Your task to perform on an android device: open sync settings in chrome Image 0: 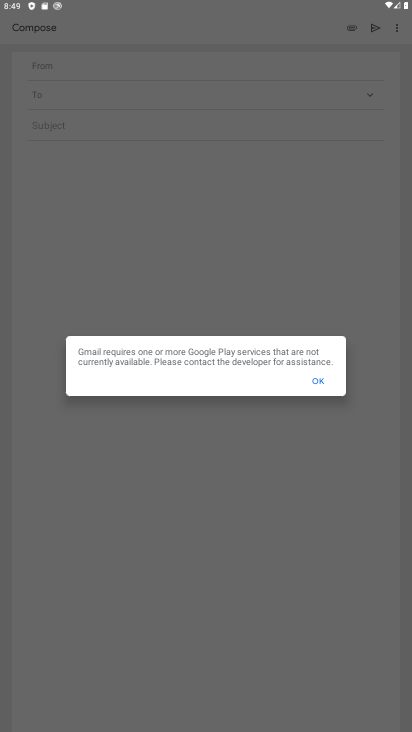
Step 0: press home button
Your task to perform on an android device: open sync settings in chrome Image 1: 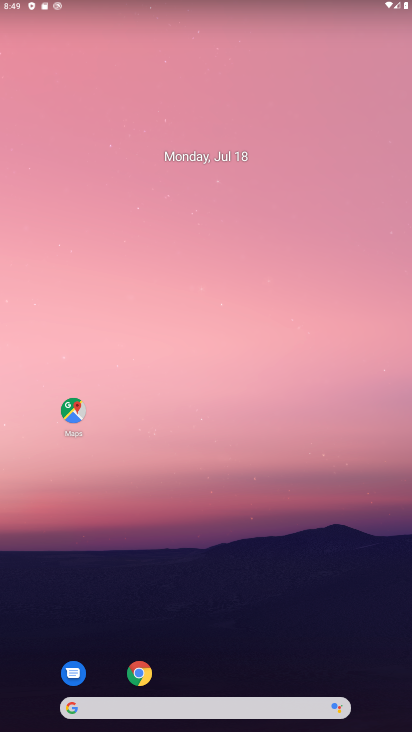
Step 1: drag from (260, 653) to (345, 0)
Your task to perform on an android device: open sync settings in chrome Image 2: 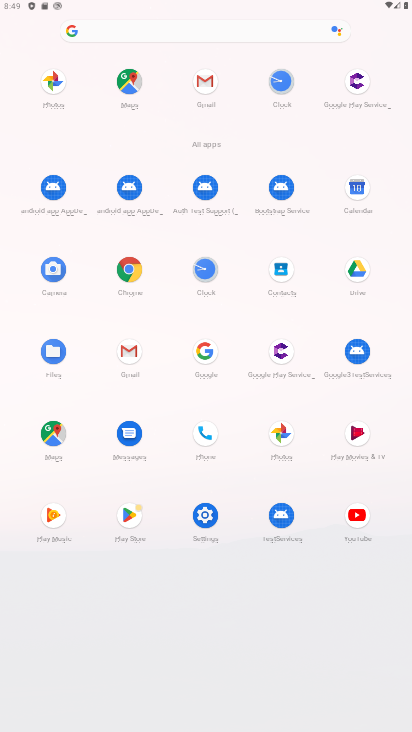
Step 2: click (132, 277)
Your task to perform on an android device: open sync settings in chrome Image 3: 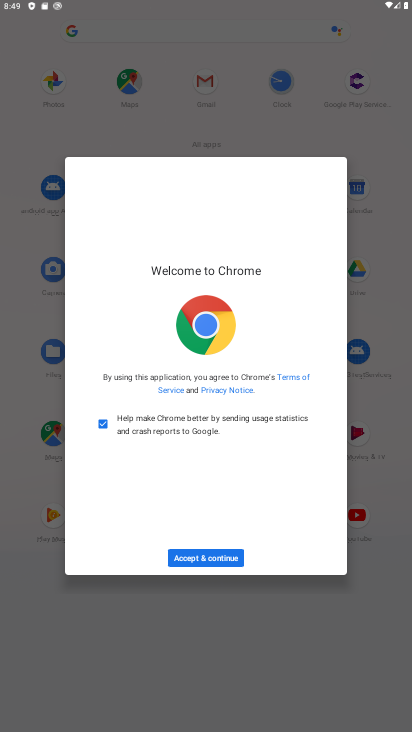
Step 3: click (210, 557)
Your task to perform on an android device: open sync settings in chrome Image 4: 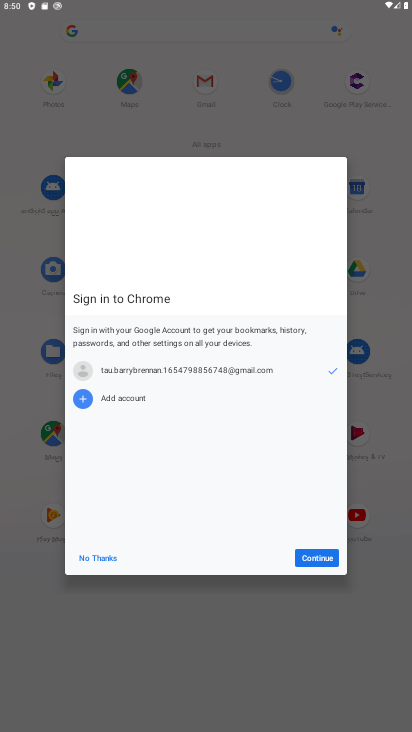
Step 4: click (318, 554)
Your task to perform on an android device: open sync settings in chrome Image 5: 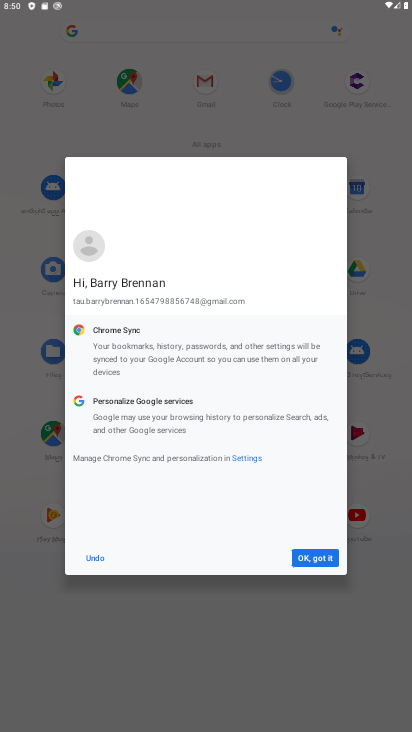
Step 5: click (313, 560)
Your task to perform on an android device: open sync settings in chrome Image 6: 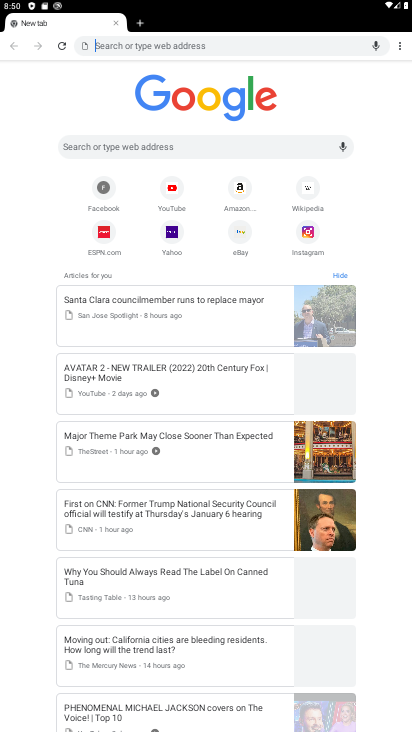
Step 6: drag from (402, 48) to (310, 212)
Your task to perform on an android device: open sync settings in chrome Image 7: 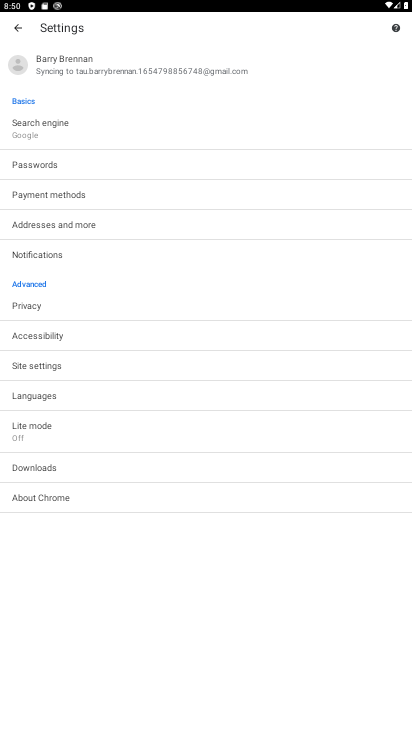
Step 7: click (118, 65)
Your task to perform on an android device: open sync settings in chrome Image 8: 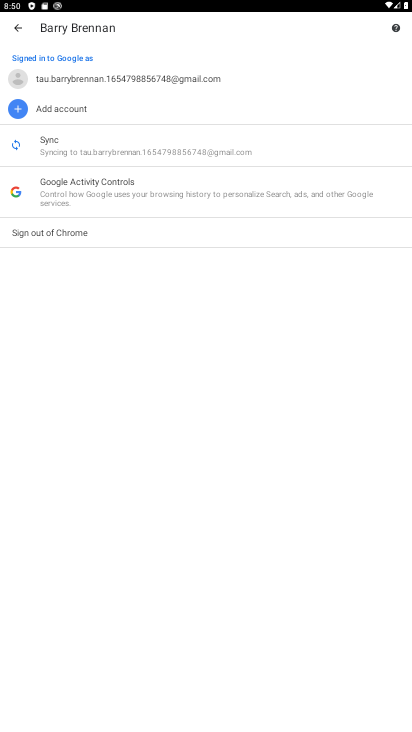
Step 8: click (52, 148)
Your task to perform on an android device: open sync settings in chrome Image 9: 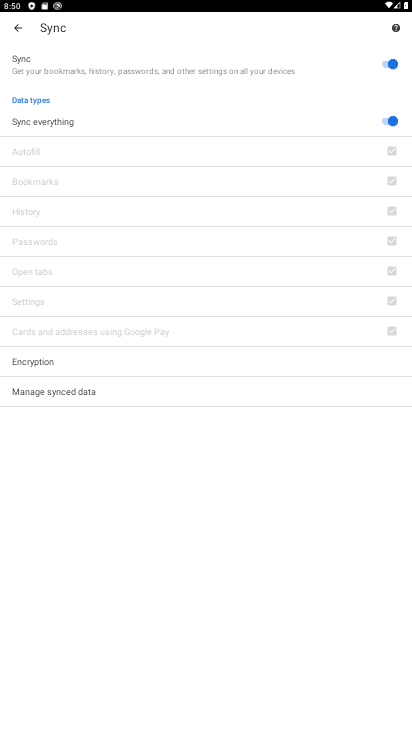
Step 9: task complete